Your task to perform on an android device: open app "Google Play services" (install if not already installed) Image 0: 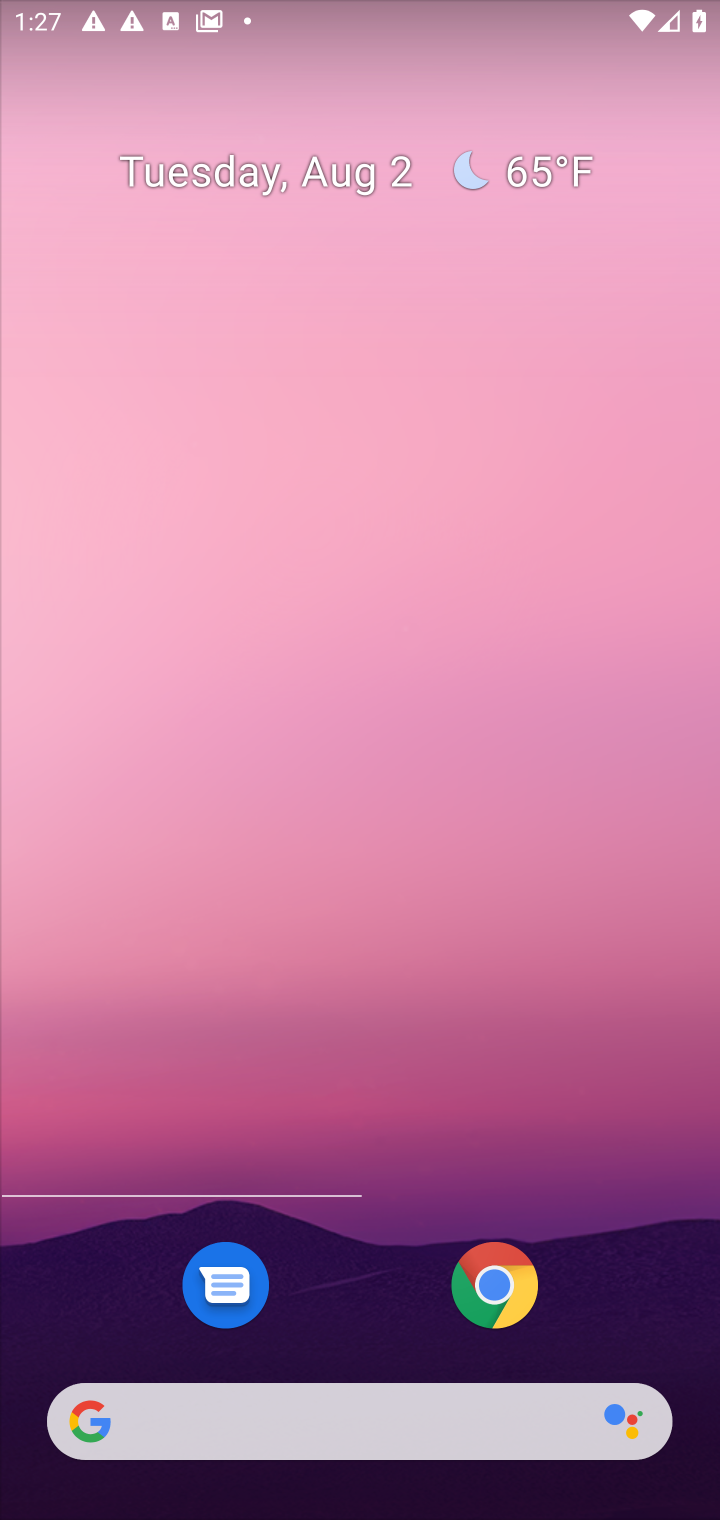
Step 0: press home button
Your task to perform on an android device: open app "Google Play services" (install if not already installed) Image 1: 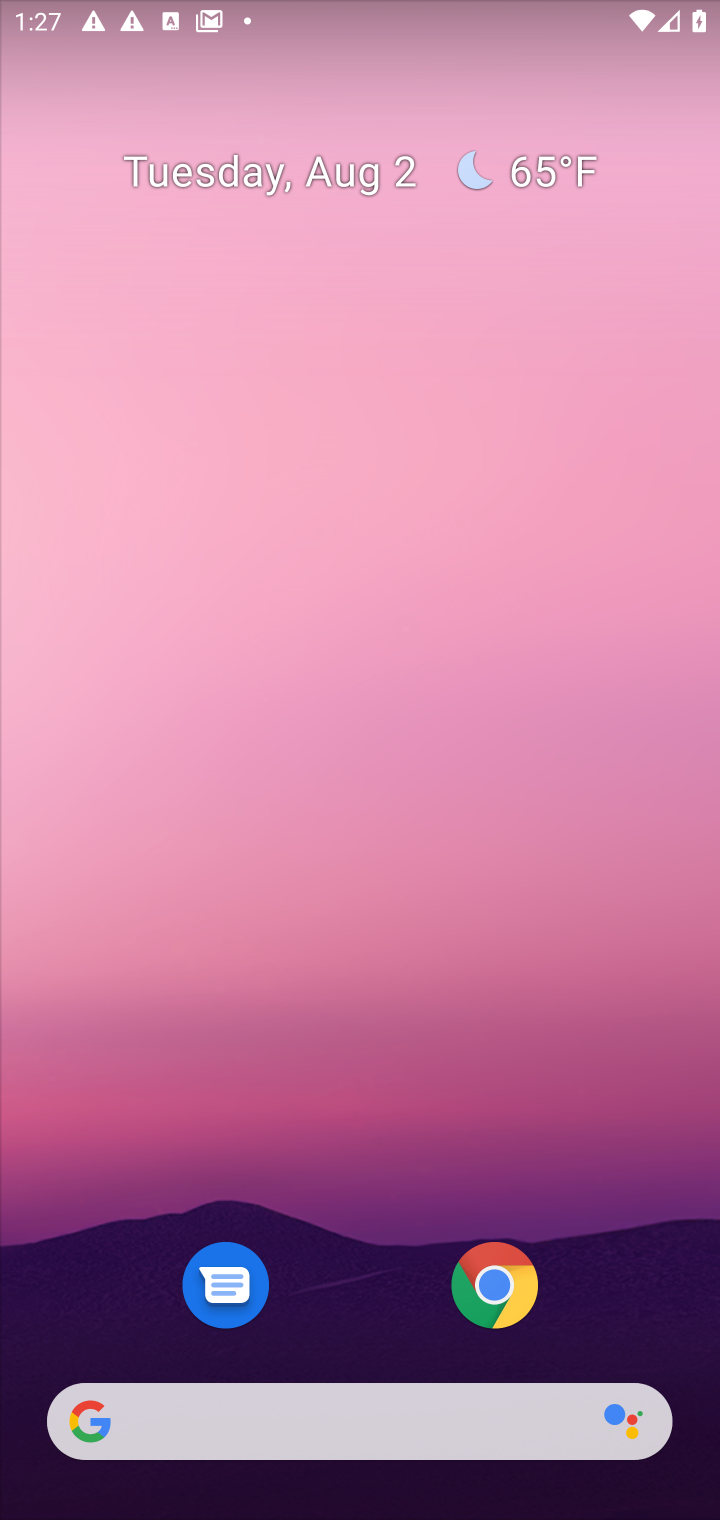
Step 1: drag from (582, 1175) to (605, 316)
Your task to perform on an android device: open app "Google Play services" (install if not already installed) Image 2: 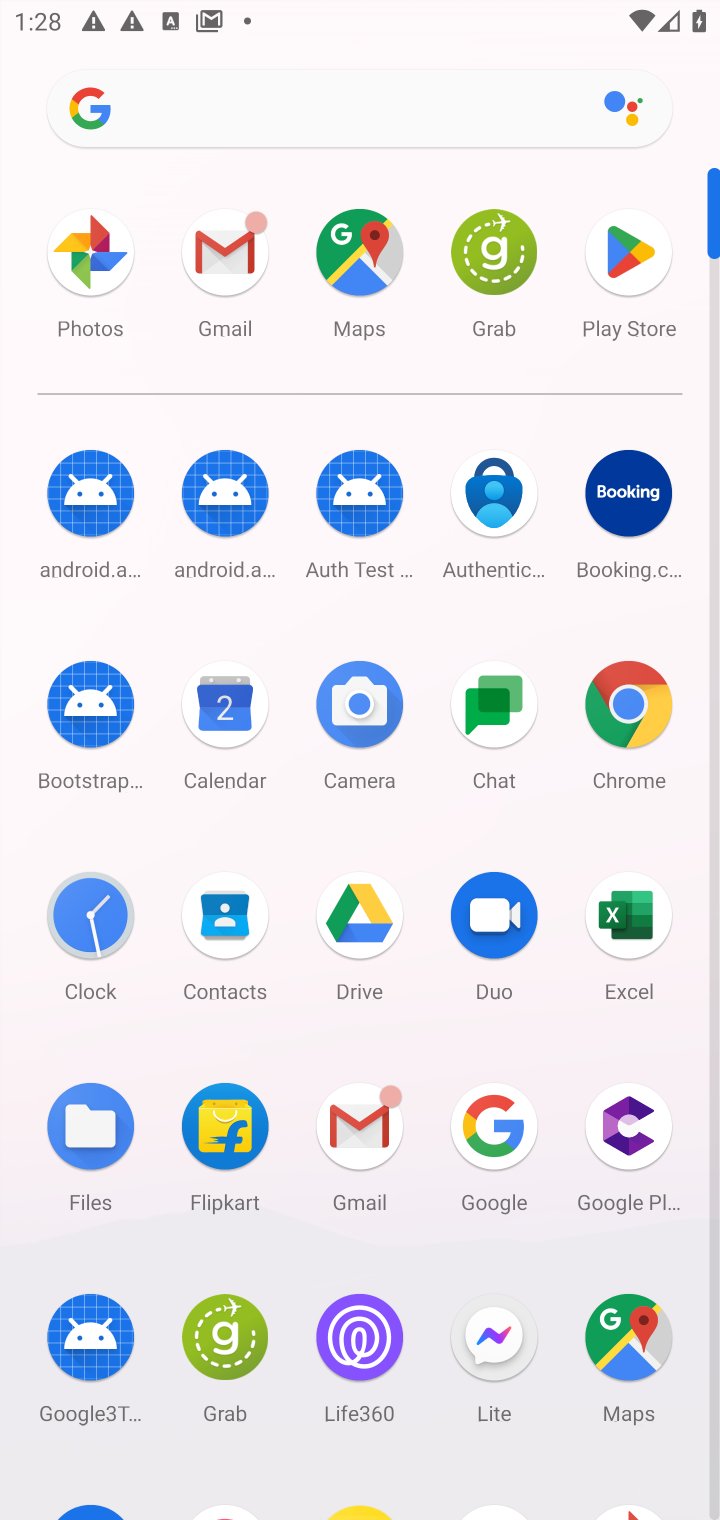
Step 2: drag from (430, 1230) to (497, 567)
Your task to perform on an android device: open app "Google Play services" (install if not already installed) Image 3: 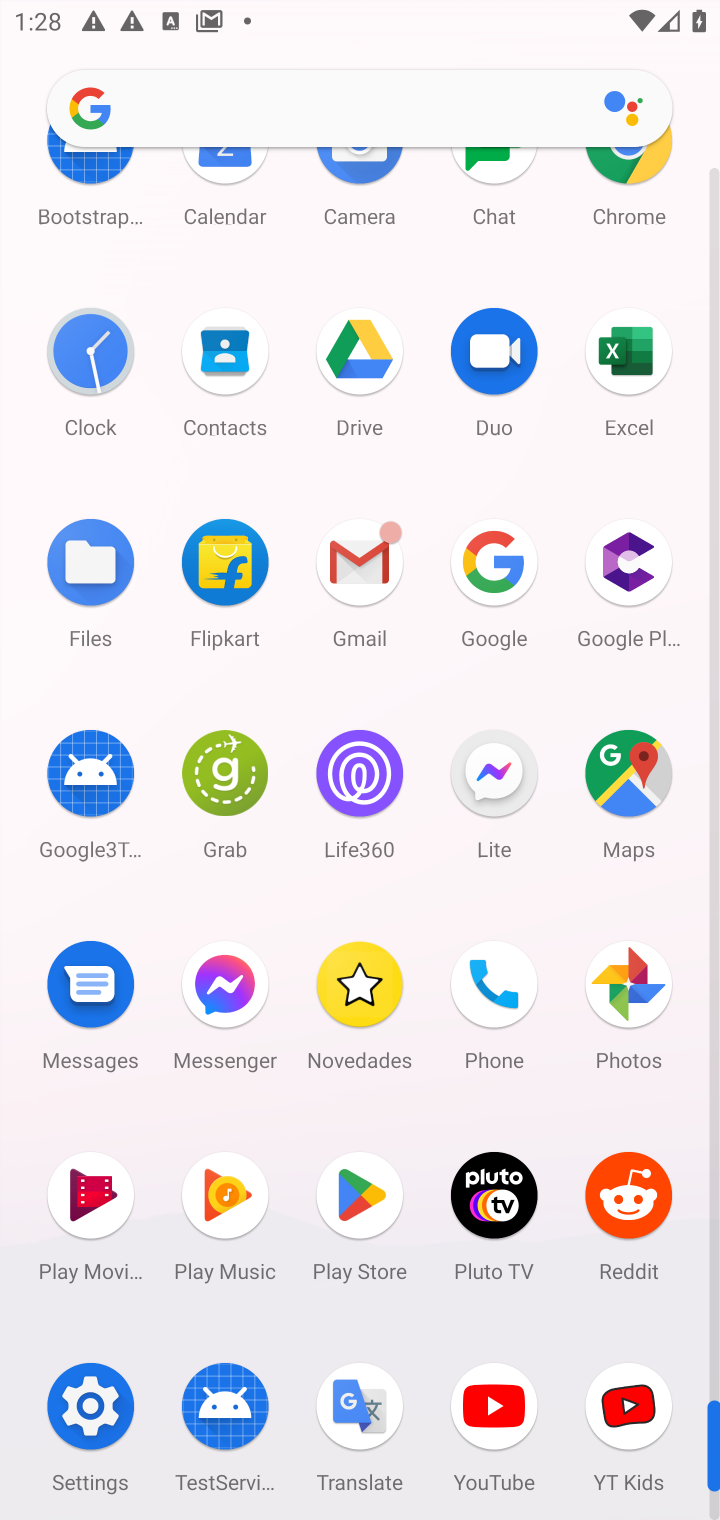
Step 3: click (369, 1180)
Your task to perform on an android device: open app "Google Play services" (install if not already installed) Image 4: 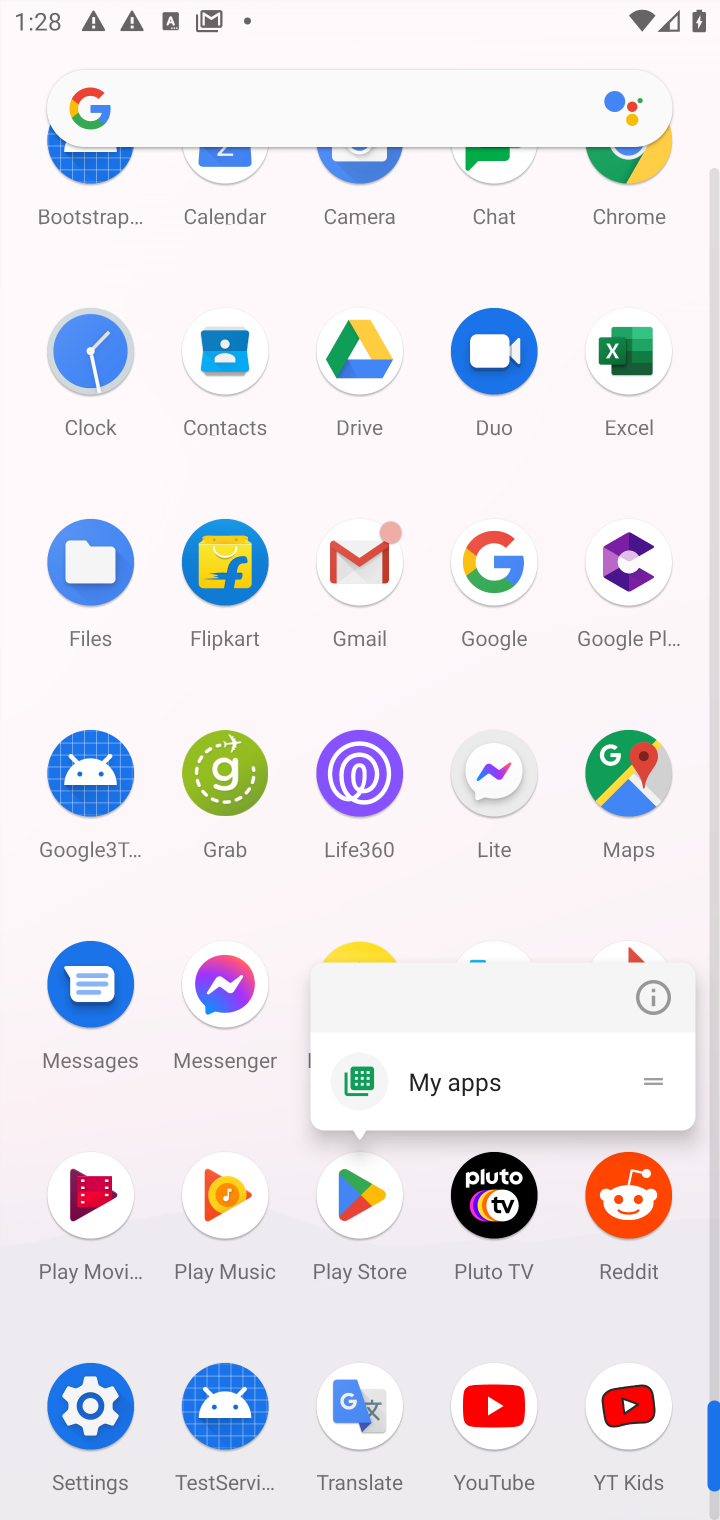
Step 4: click (367, 1189)
Your task to perform on an android device: open app "Google Play services" (install if not already installed) Image 5: 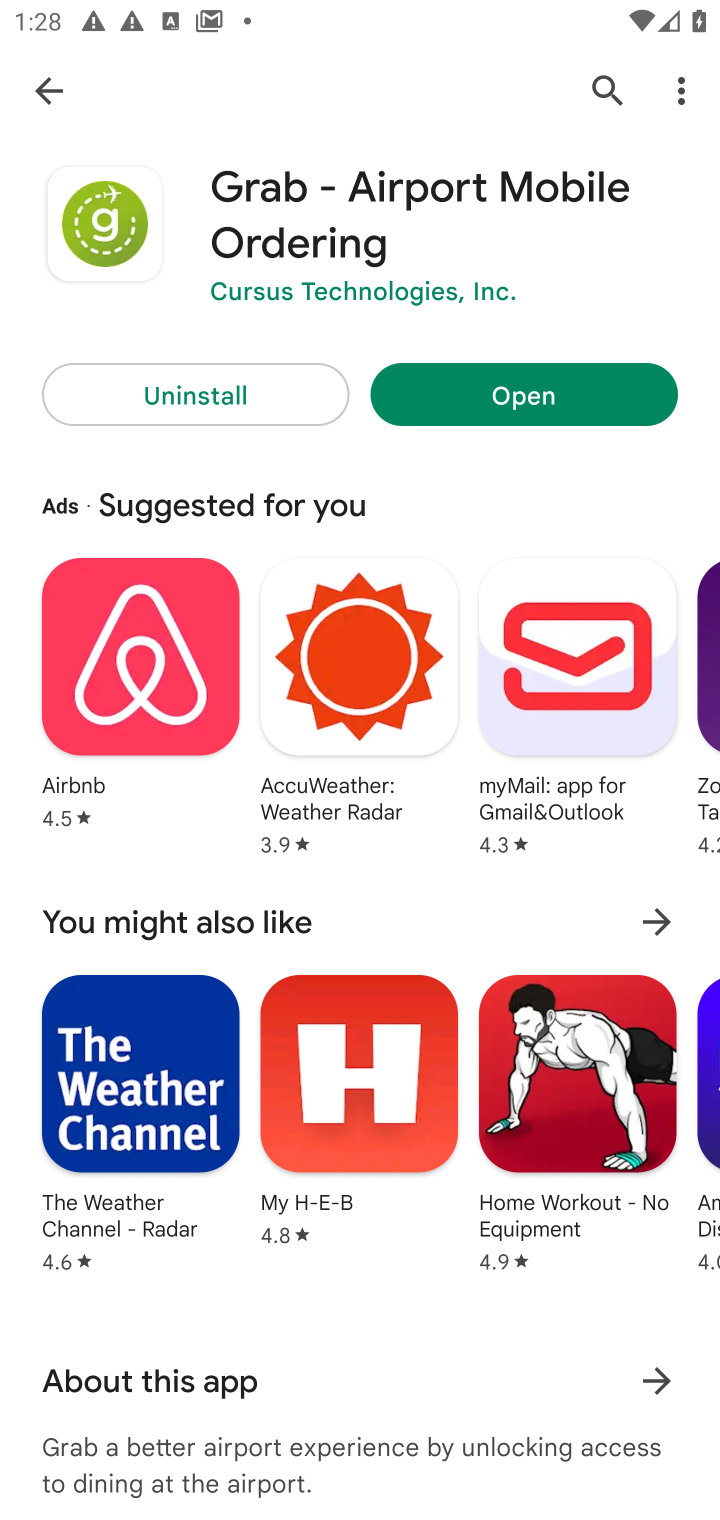
Step 5: click (618, 85)
Your task to perform on an android device: open app "Google Play services" (install if not already installed) Image 6: 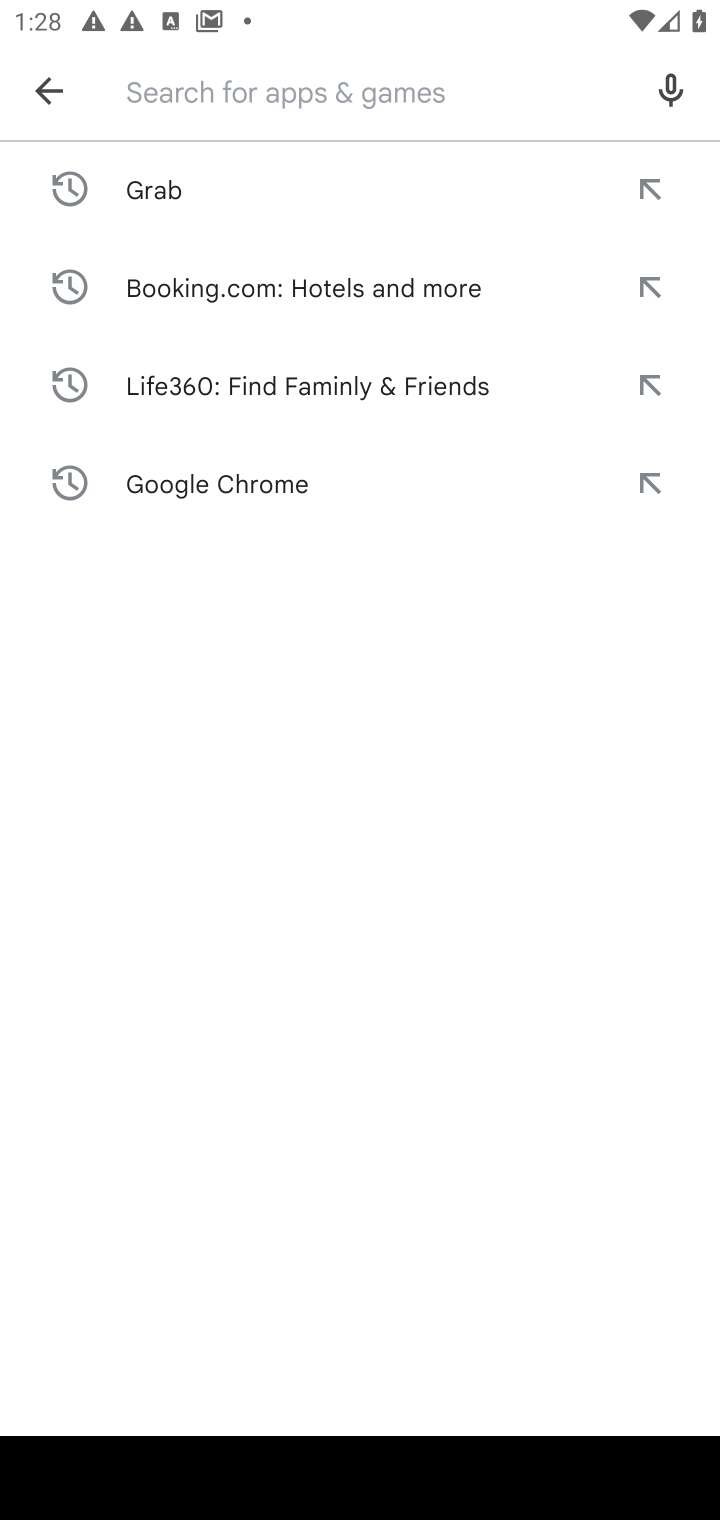
Step 6: type "Google Play services"
Your task to perform on an android device: open app "Google Play services" (install if not already installed) Image 7: 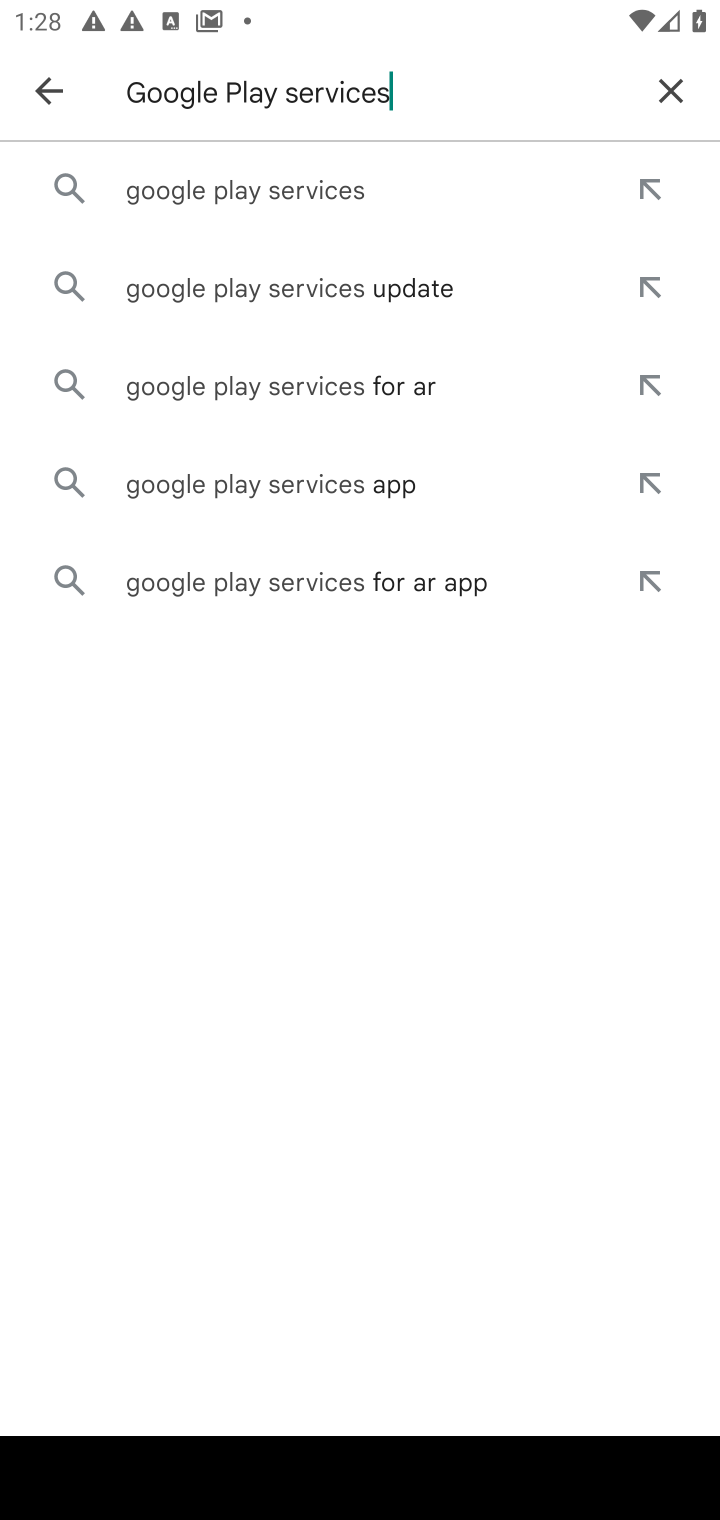
Step 7: press enter
Your task to perform on an android device: open app "Google Play services" (install if not already installed) Image 8: 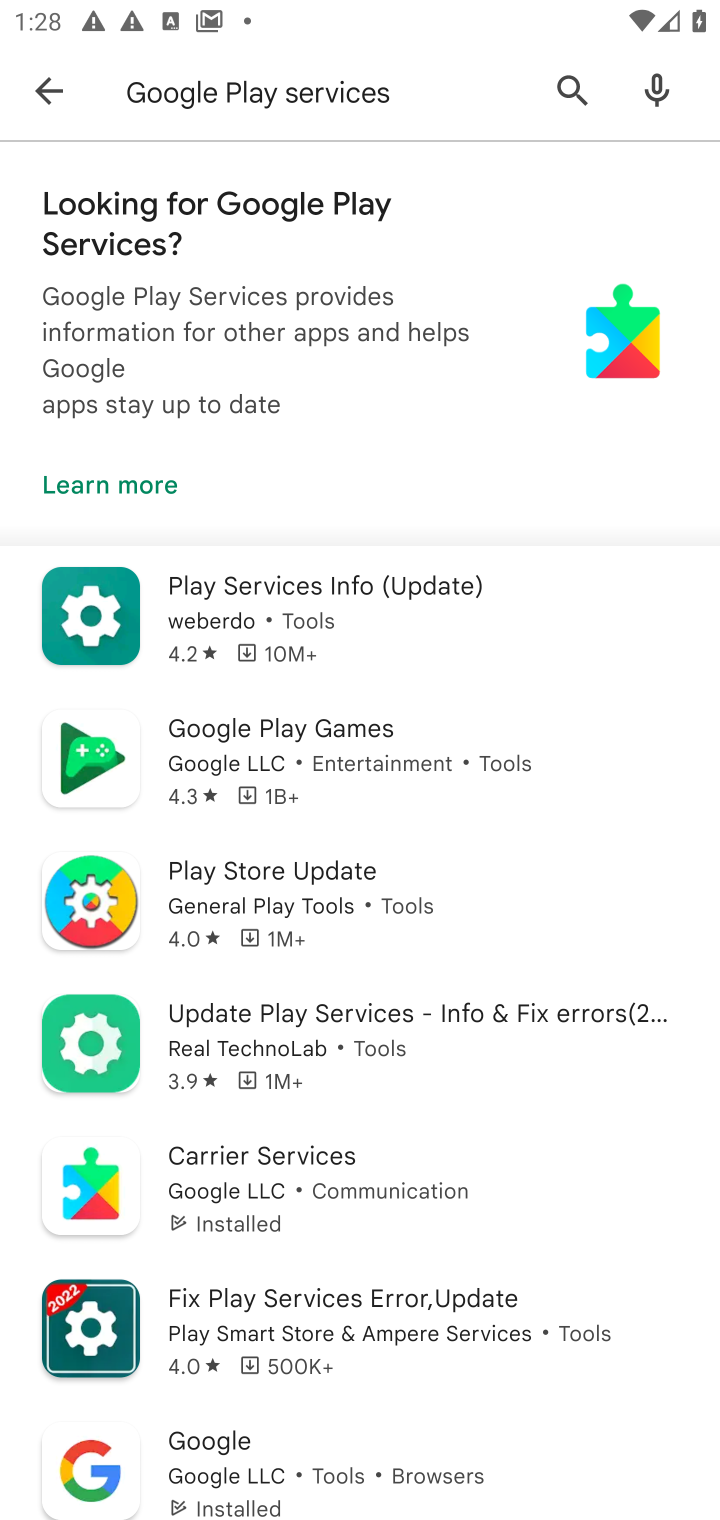
Step 8: task complete